Your task to perform on an android device: manage bookmarks in the chrome app Image 0: 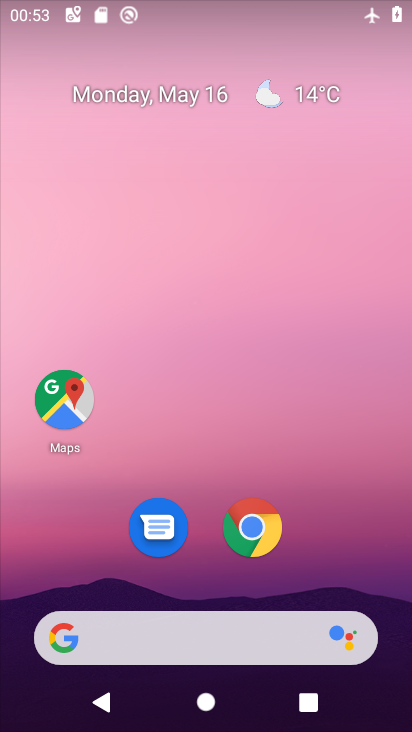
Step 0: click (252, 520)
Your task to perform on an android device: manage bookmarks in the chrome app Image 1: 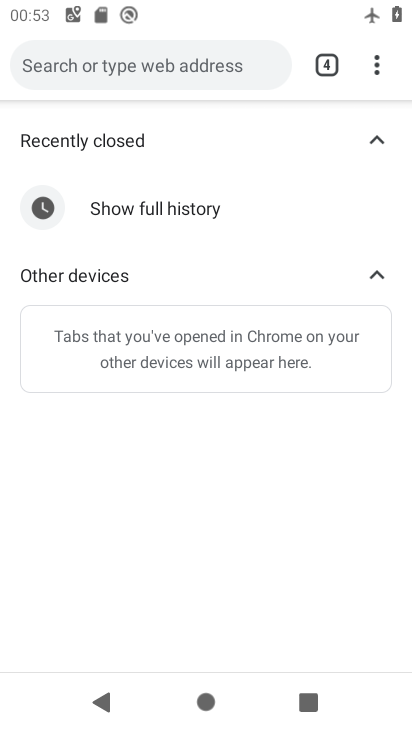
Step 1: click (374, 82)
Your task to perform on an android device: manage bookmarks in the chrome app Image 2: 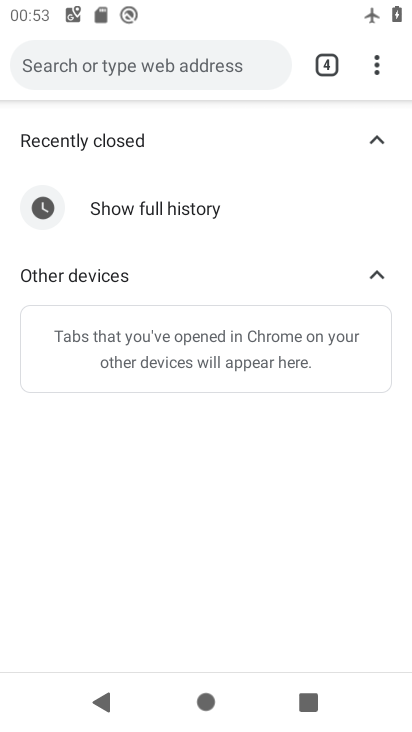
Step 2: click (387, 69)
Your task to perform on an android device: manage bookmarks in the chrome app Image 3: 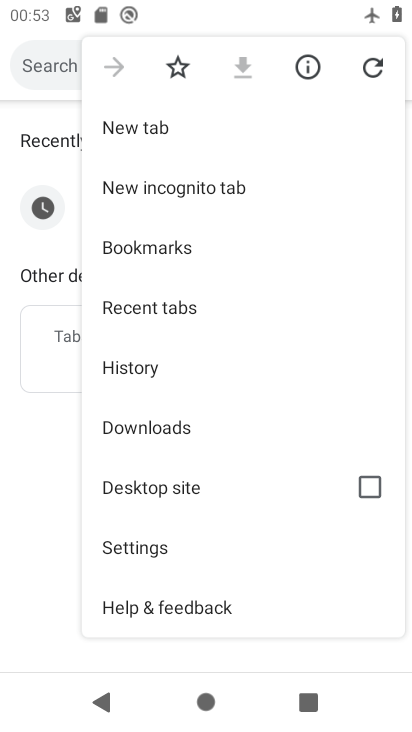
Step 3: click (172, 256)
Your task to perform on an android device: manage bookmarks in the chrome app Image 4: 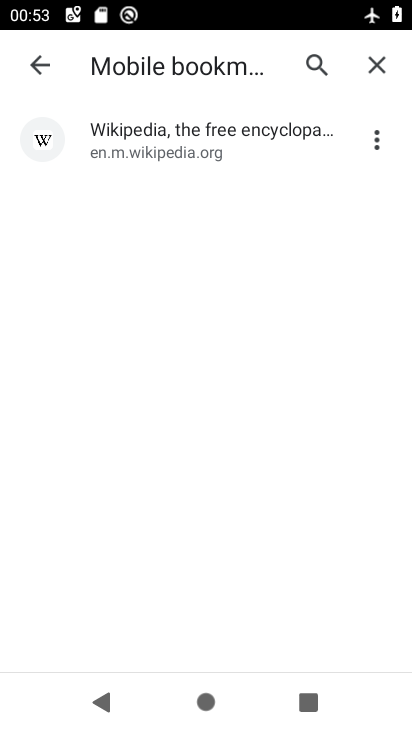
Step 4: click (365, 143)
Your task to perform on an android device: manage bookmarks in the chrome app Image 5: 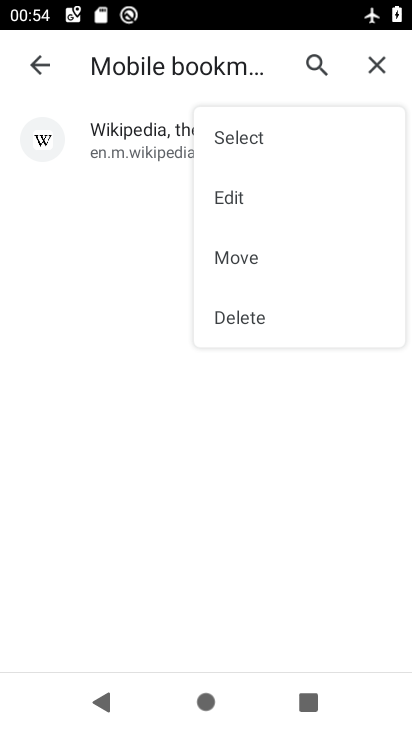
Step 5: click (242, 204)
Your task to perform on an android device: manage bookmarks in the chrome app Image 6: 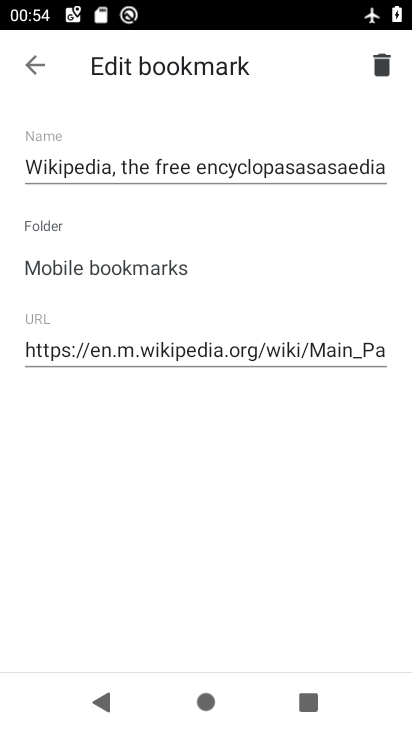
Step 6: click (64, 166)
Your task to perform on an android device: manage bookmarks in the chrome app Image 7: 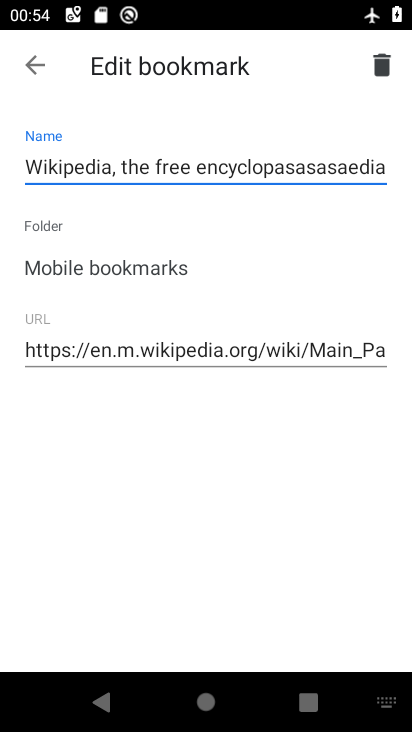
Step 7: type "dghkwg"
Your task to perform on an android device: manage bookmarks in the chrome app Image 8: 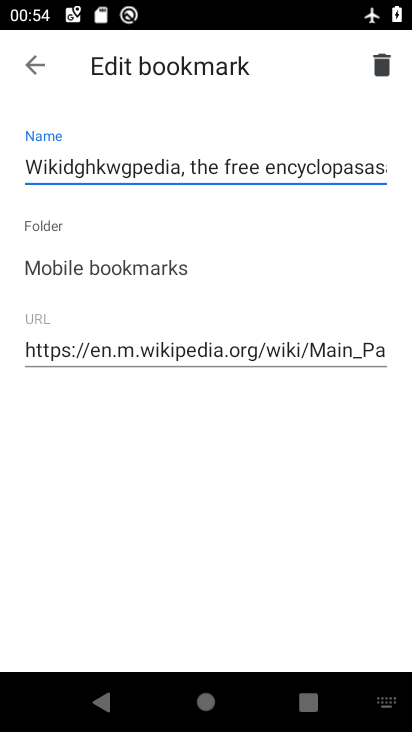
Step 8: click (382, 72)
Your task to perform on an android device: manage bookmarks in the chrome app Image 9: 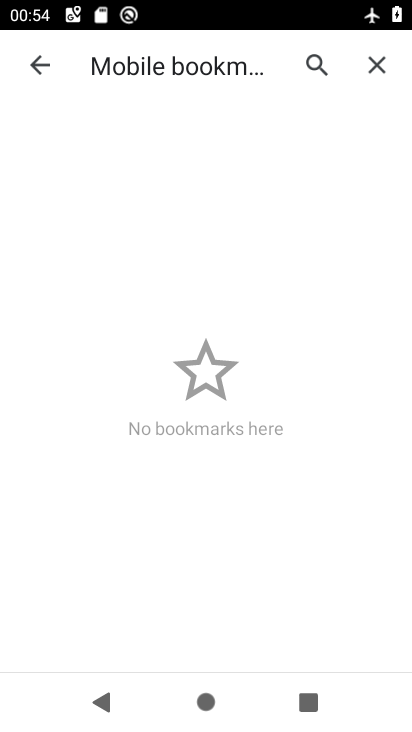
Step 9: task complete